Your task to perform on an android device: manage bookmarks in the chrome app Image 0: 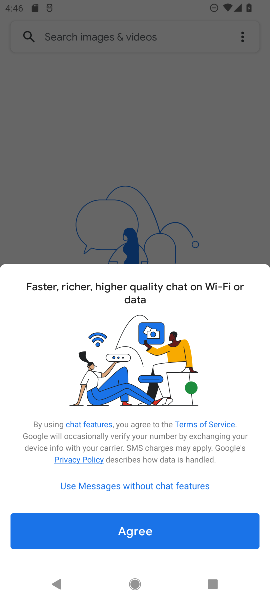
Step 0: press home button
Your task to perform on an android device: manage bookmarks in the chrome app Image 1: 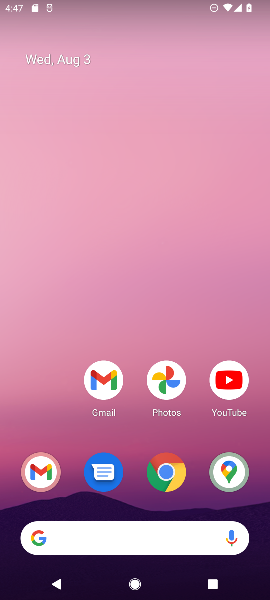
Step 1: drag from (182, 476) to (85, 28)
Your task to perform on an android device: manage bookmarks in the chrome app Image 2: 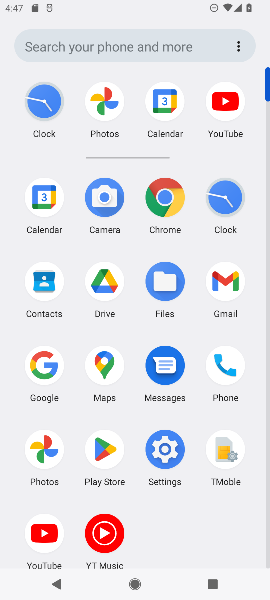
Step 2: click (158, 204)
Your task to perform on an android device: manage bookmarks in the chrome app Image 3: 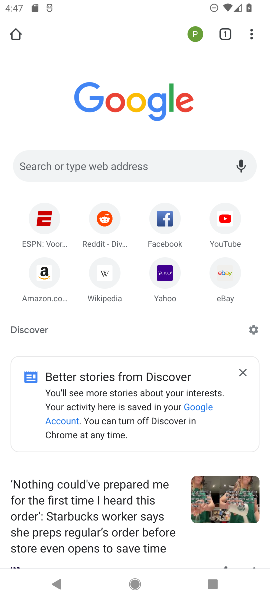
Step 3: task complete